Your task to perform on an android device: Open Google Chrome and click the shortcut for Amazon.com Image 0: 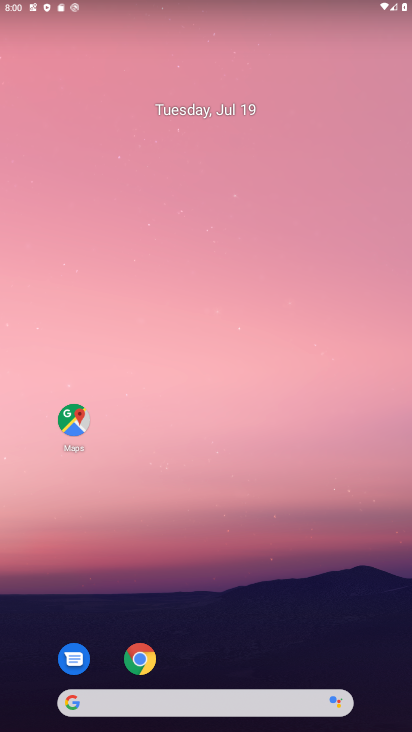
Step 0: click (133, 663)
Your task to perform on an android device: Open Google Chrome and click the shortcut for Amazon.com Image 1: 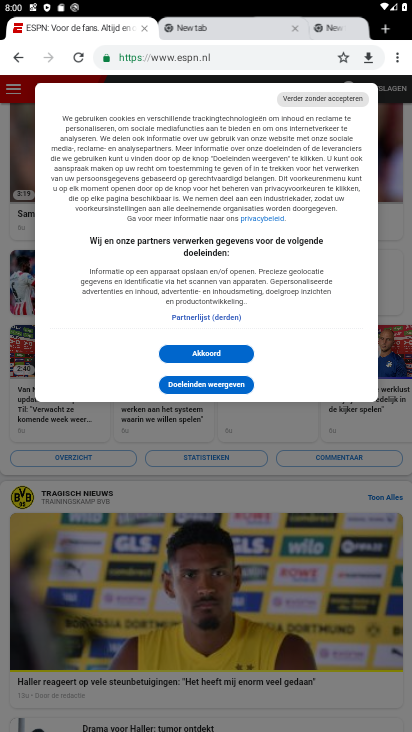
Step 1: click (214, 32)
Your task to perform on an android device: Open Google Chrome and click the shortcut for Amazon.com Image 2: 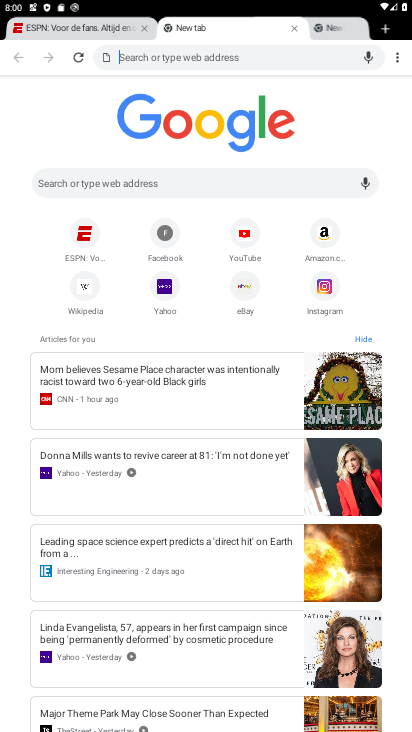
Step 2: click (323, 228)
Your task to perform on an android device: Open Google Chrome and click the shortcut for Amazon.com Image 3: 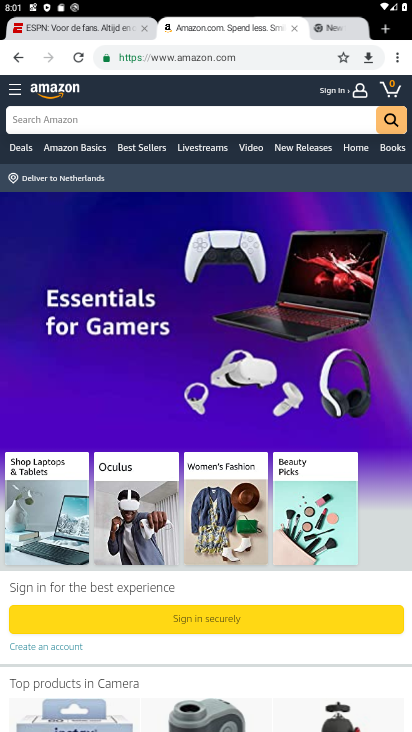
Step 3: task complete